Your task to perform on an android device: change your default location settings in chrome Image 0: 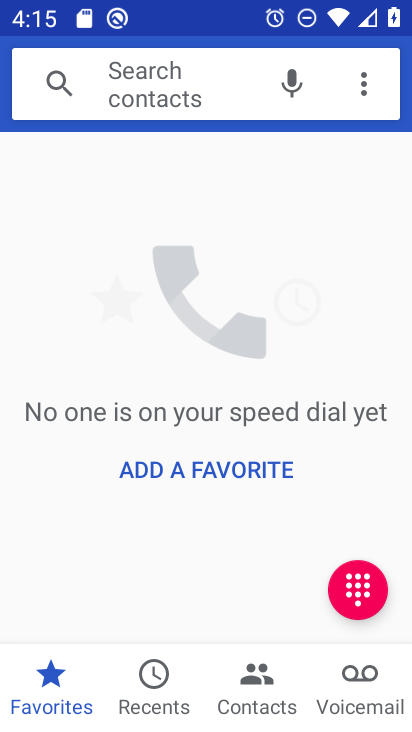
Step 0: press home button
Your task to perform on an android device: change your default location settings in chrome Image 1: 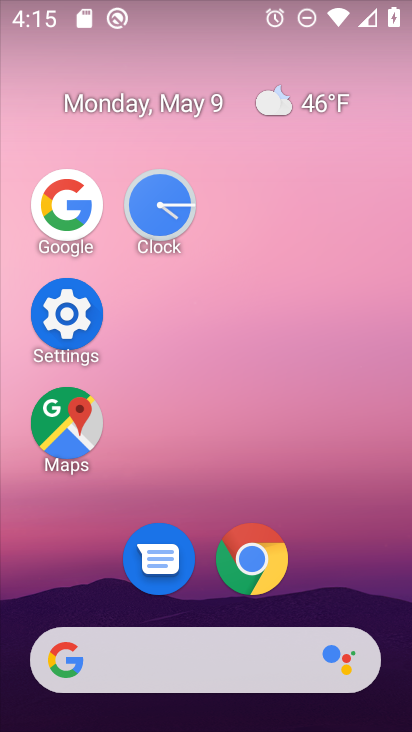
Step 1: click (267, 565)
Your task to perform on an android device: change your default location settings in chrome Image 2: 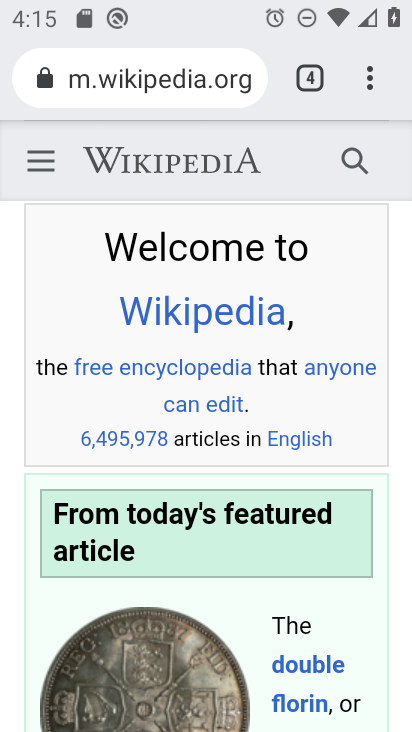
Step 2: click (381, 67)
Your task to perform on an android device: change your default location settings in chrome Image 3: 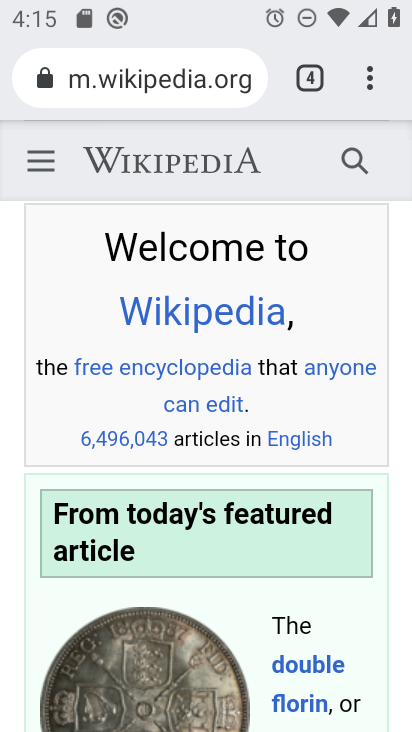
Step 3: click (381, 67)
Your task to perform on an android device: change your default location settings in chrome Image 4: 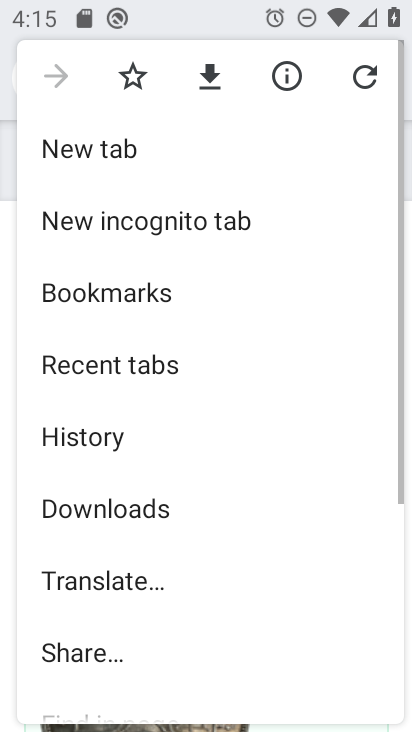
Step 4: drag from (179, 579) to (205, 147)
Your task to perform on an android device: change your default location settings in chrome Image 5: 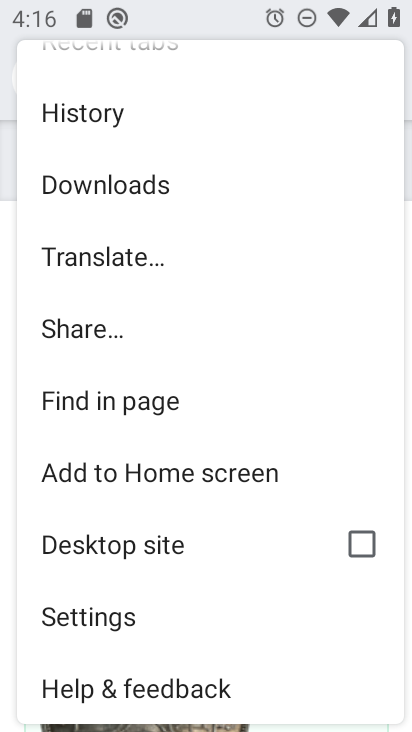
Step 5: click (195, 618)
Your task to perform on an android device: change your default location settings in chrome Image 6: 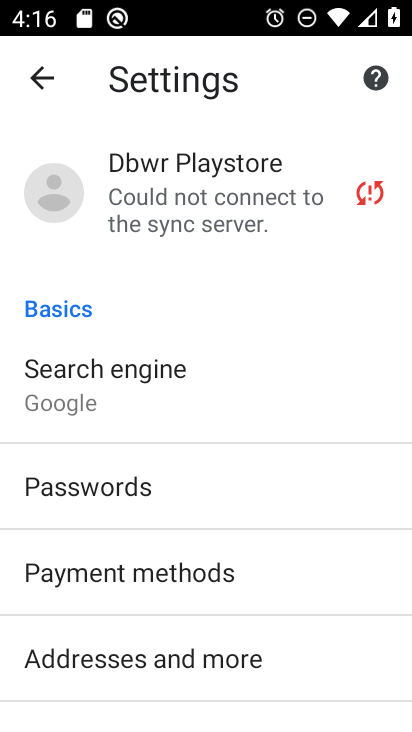
Step 6: drag from (246, 623) to (310, 186)
Your task to perform on an android device: change your default location settings in chrome Image 7: 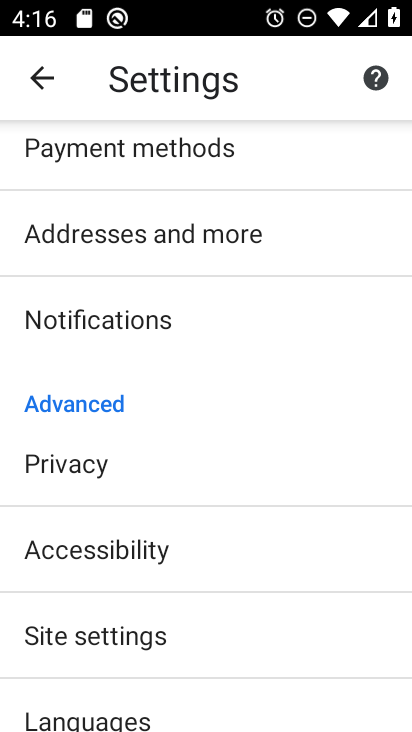
Step 7: drag from (198, 584) to (252, 275)
Your task to perform on an android device: change your default location settings in chrome Image 8: 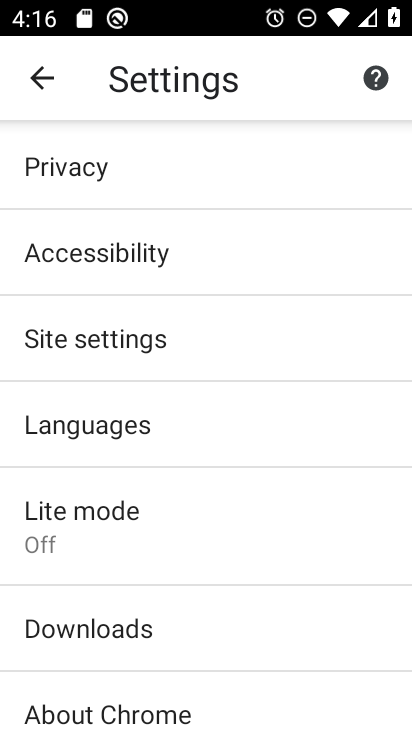
Step 8: click (244, 353)
Your task to perform on an android device: change your default location settings in chrome Image 9: 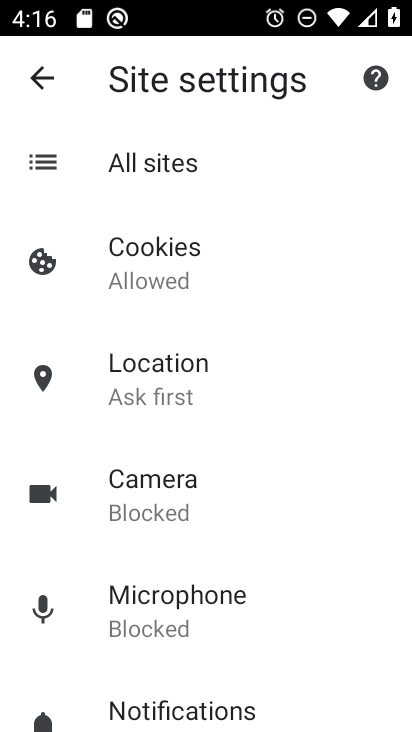
Step 9: drag from (243, 683) to (263, 484)
Your task to perform on an android device: change your default location settings in chrome Image 10: 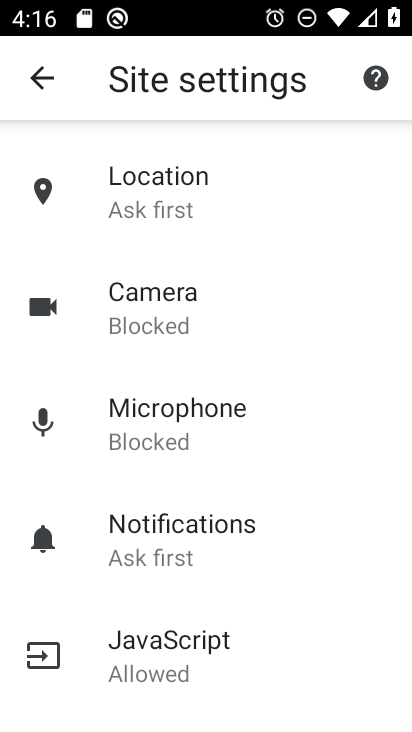
Step 10: click (269, 186)
Your task to perform on an android device: change your default location settings in chrome Image 11: 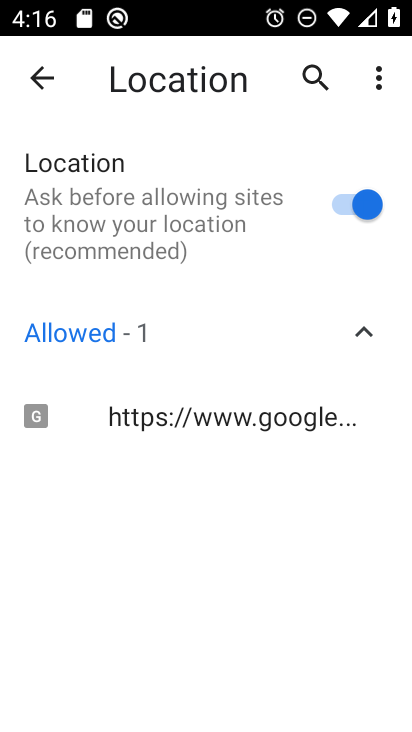
Step 11: click (337, 212)
Your task to perform on an android device: change your default location settings in chrome Image 12: 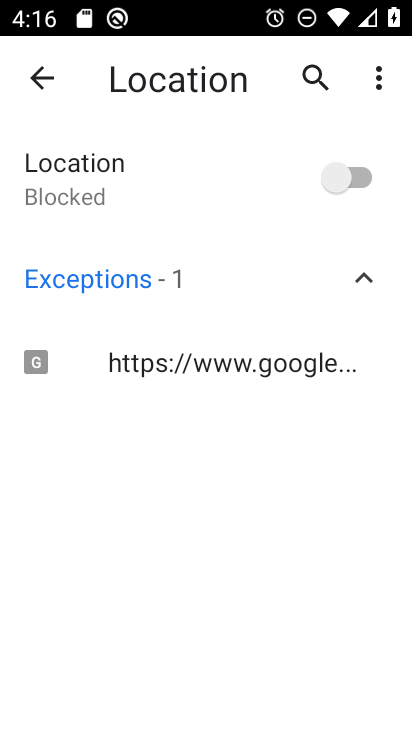
Step 12: task complete